Your task to perform on an android device: set the stopwatch Image 0: 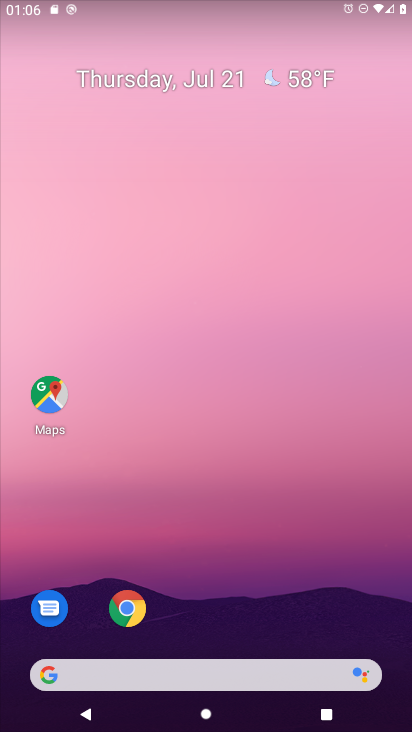
Step 0: drag from (321, 633) to (375, 14)
Your task to perform on an android device: set the stopwatch Image 1: 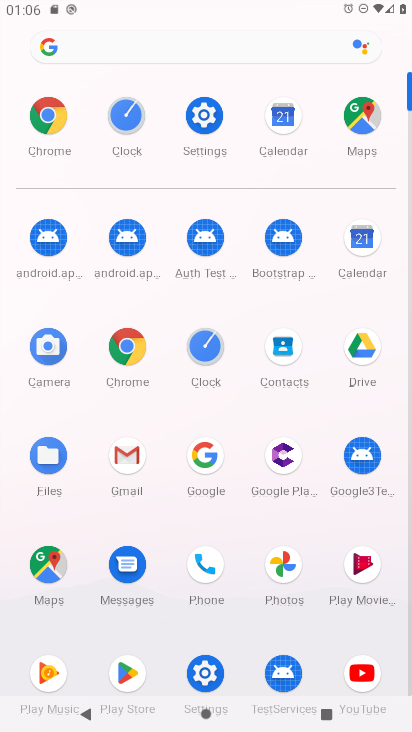
Step 1: click (156, 110)
Your task to perform on an android device: set the stopwatch Image 2: 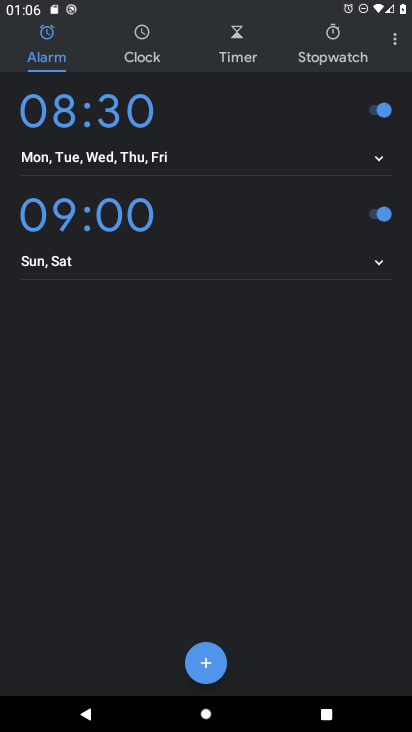
Step 2: click (318, 44)
Your task to perform on an android device: set the stopwatch Image 3: 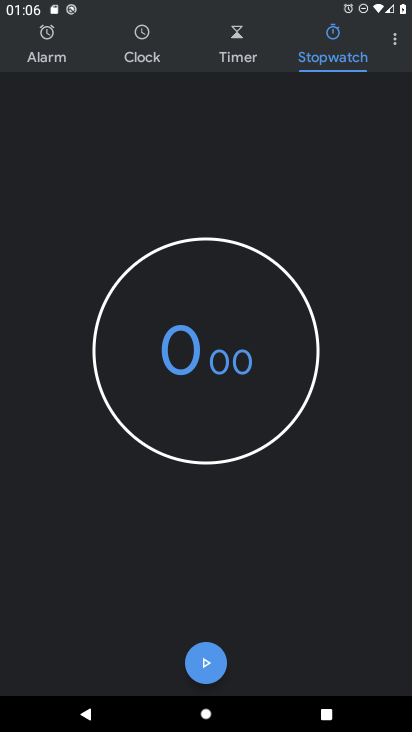
Step 3: click (198, 661)
Your task to perform on an android device: set the stopwatch Image 4: 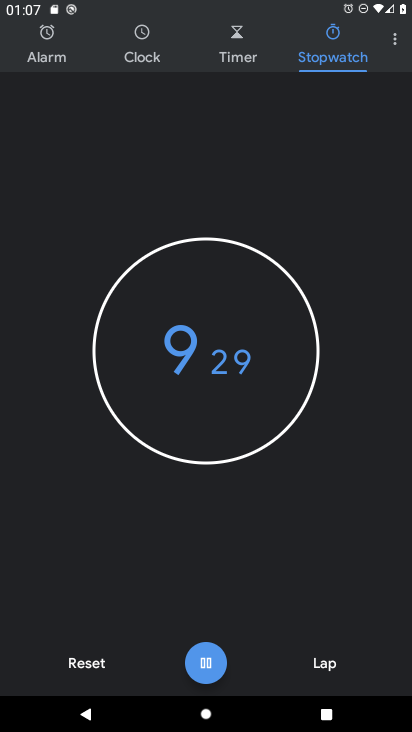
Step 4: task complete